Your task to perform on an android device: turn pop-ups off in chrome Image 0: 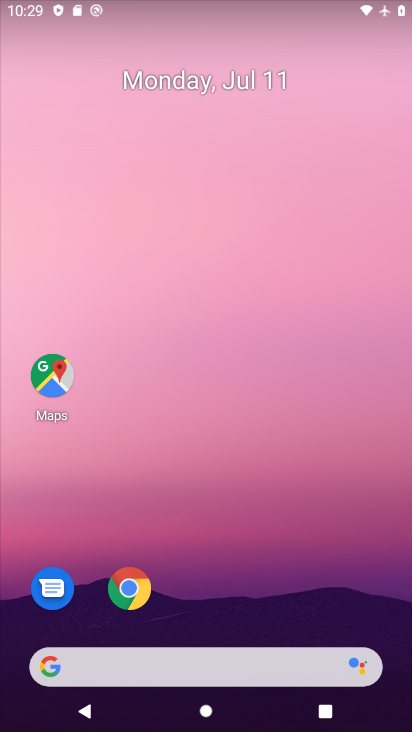
Step 0: click (130, 591)
Your task to perform on an android device: turn pop-ups off in chrome Image 1: 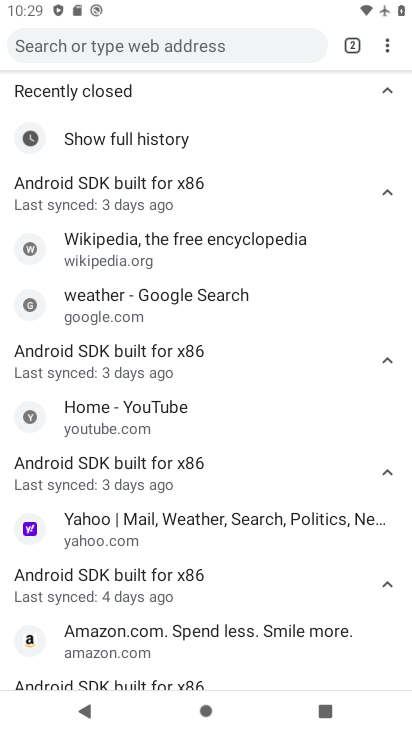
Step 1: drag from (385, 45) to (248, 387)
Your task to perform on an android device: turn pop-ups off in chrome Image 2: 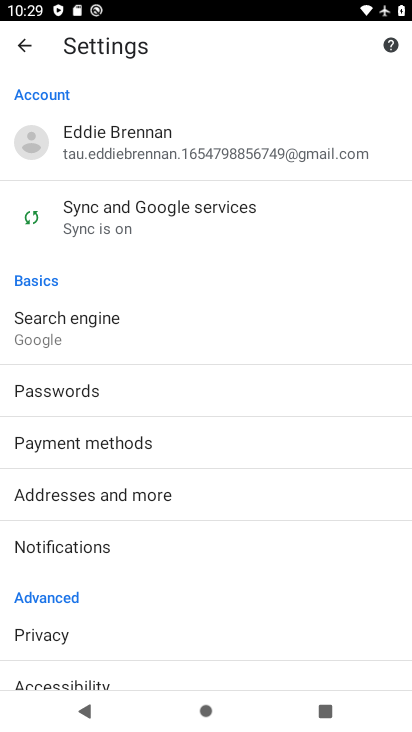
Step 2: drag from (219, 559) to (408, 68)
Your task to perform on an android device: turn pop-ups off in chrome Image 3: 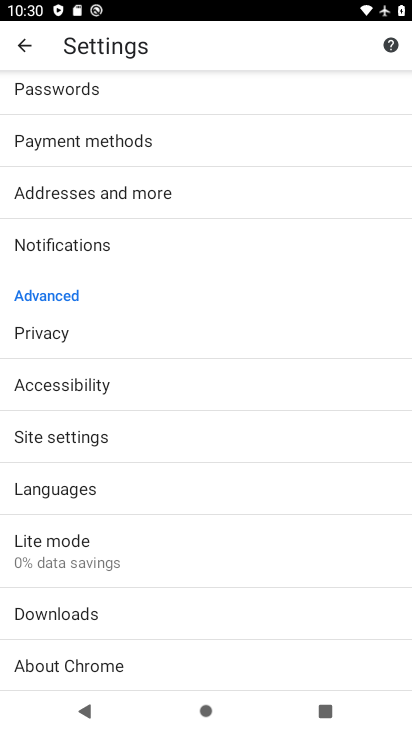
Step 3: click (64, 439)
Your task to perform on an android device: turn pop-ups off in chrome Image 4: 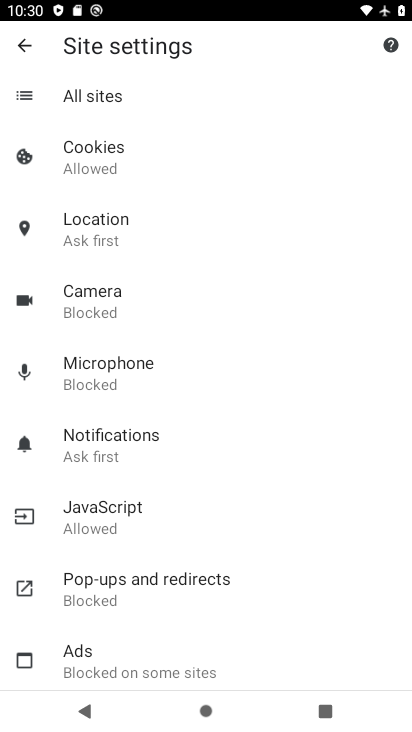
Step 4: click (157, 579)
Your task to perform on an android device: turn pop-ups off in chrome Image 5: 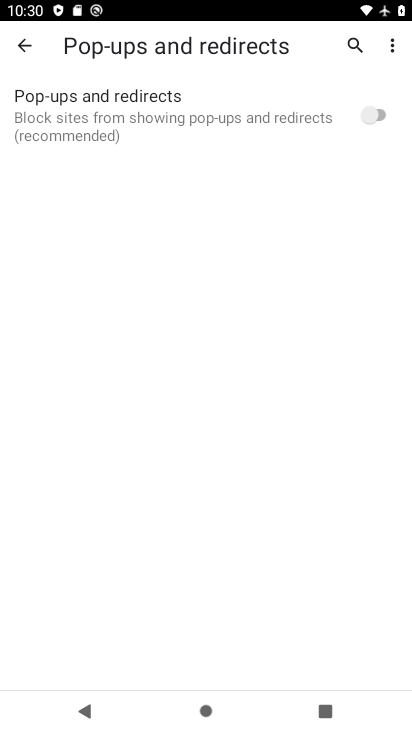
Step 5: task complete